Your task to perform on an android device: turn off priority inbox in the gmail app Image 0: 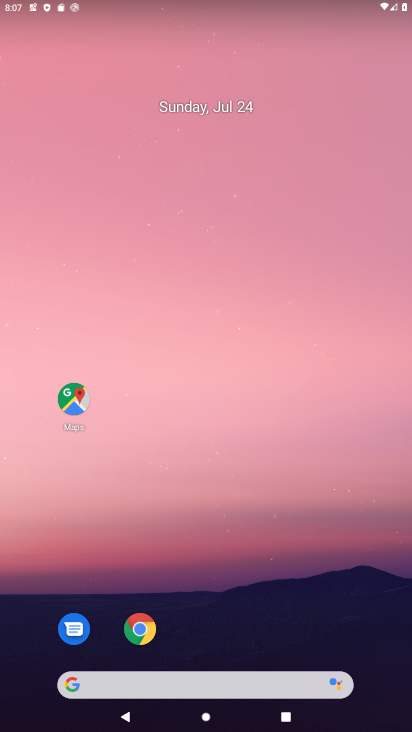
Step 0: drag from (185, 693) to (177, 185)
Your task to perform on an android device: turn off priority inbox in the gmail app Image 1: 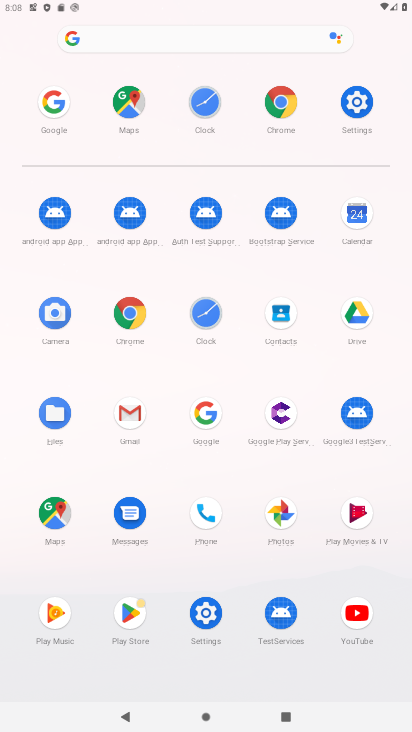
Step 1: click (172, 161)
Your task to perform on an android device: turn off priority inbox in the gmail app Image 2: 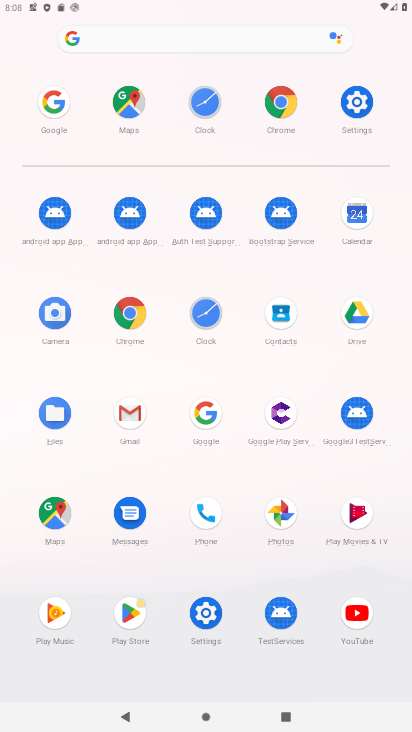
Step 2: click (128, 423)
Your task to perform on an android device: turn off priority inbox in the gmail app Image 3: 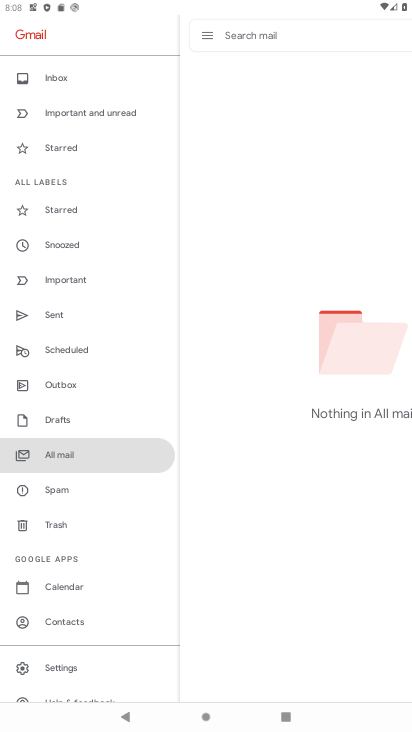
Step 3: click (69, 666)
Your task to perform on an android device: turn off priority inbox in the gmail app Image 4: 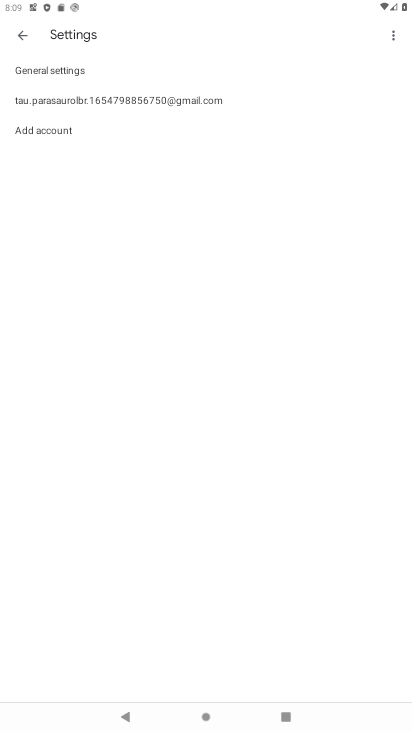
Step 4: click (140, 103)
Your task to perform on an android device: turn off priority inbox in the gmail app Image 5: 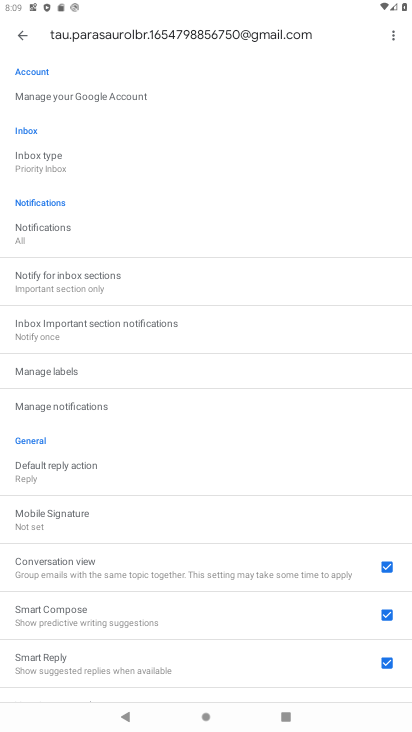
Step 5: drag from (112, 229) to (92, 533)
Your task to perform on an android device: turn off priority inbox in the gmail app Image 6: 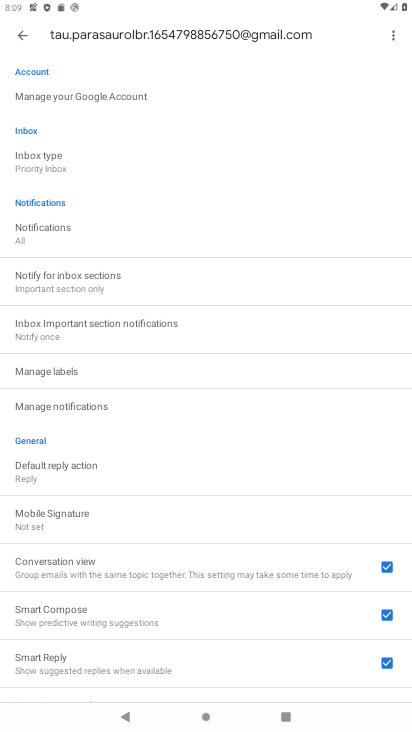
Step 6: click (62, 157)
Your task to perform on an android device: turn off priority inbox in the gmail app Image 7: 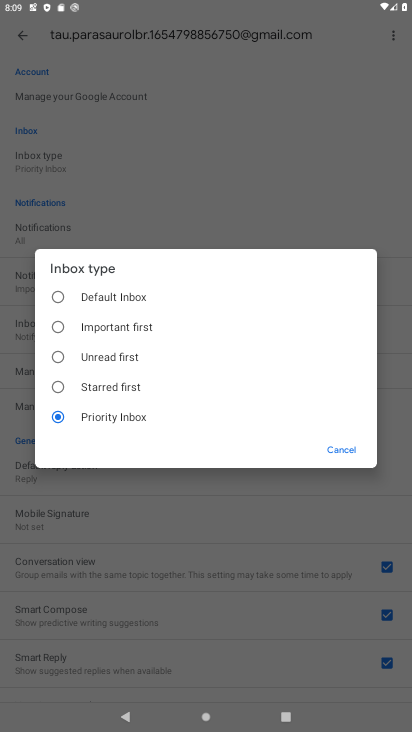
Step 7: click (98, 383)
Your task to perform on an android device: turn off priority inbox in the gmail app Image 8: 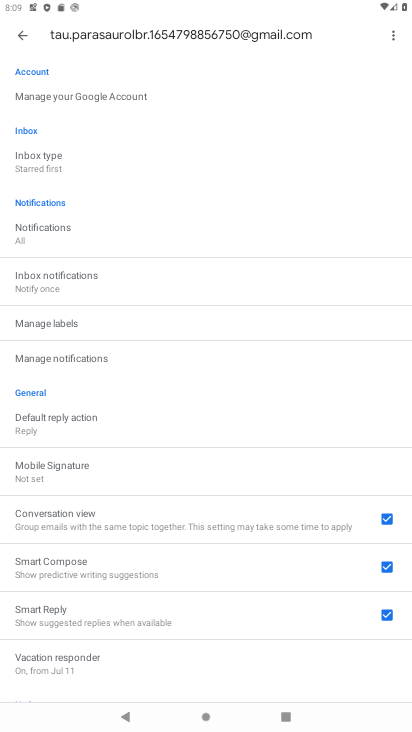
Step 8: task complete